Your task to perform on an android device: toggle pop-ups in chrome Image 0: 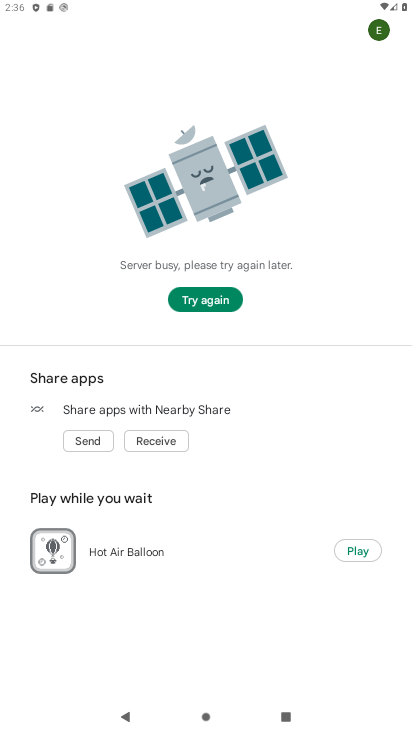
Step 0: press home button
Your task to perform on an android device: toggle pop-ups in chrome Image 1: 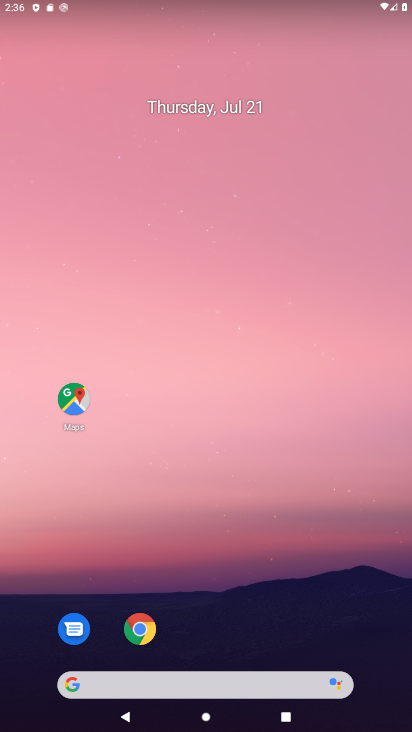
Step 1: drag from (252, 652) to (244, 54)
Your task to perform on an android device: toggle pop-ups in chrome Image 2: 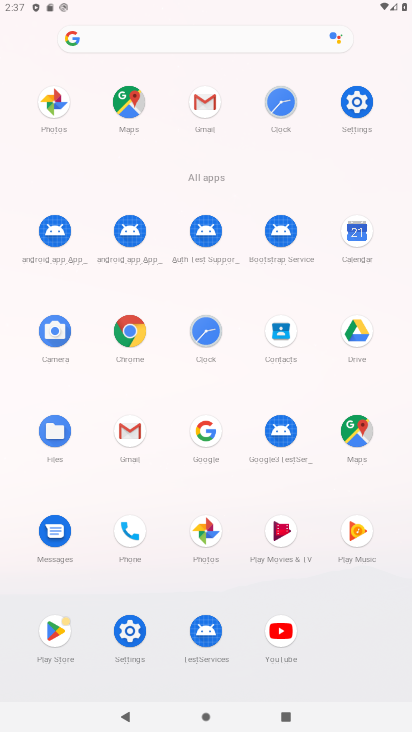
Step 2: click (136, 340)
Your task to perform on an android device: toggle pop-ups in chrome Image 3: 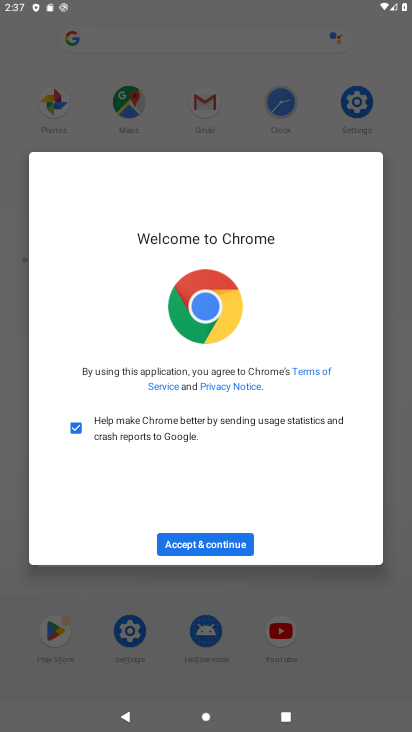
Step 3: click (236, 553)
Your task to perform on an android device: toggle pop-ups in chrome Image 4: 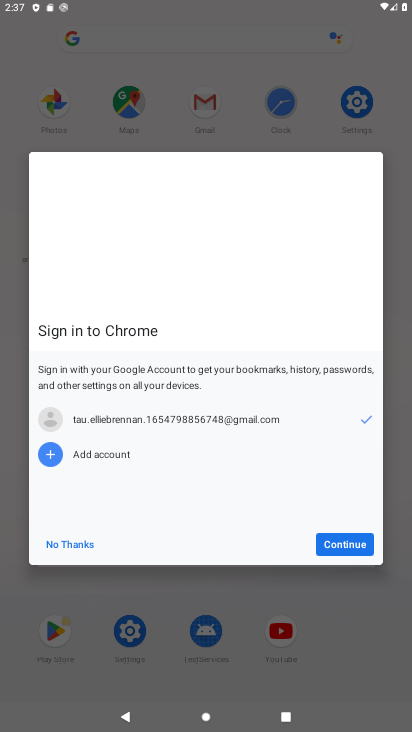
Step 4: click (336, 547)
Your task to perform on an android device: toggle pop-ups in chrome Image 5: 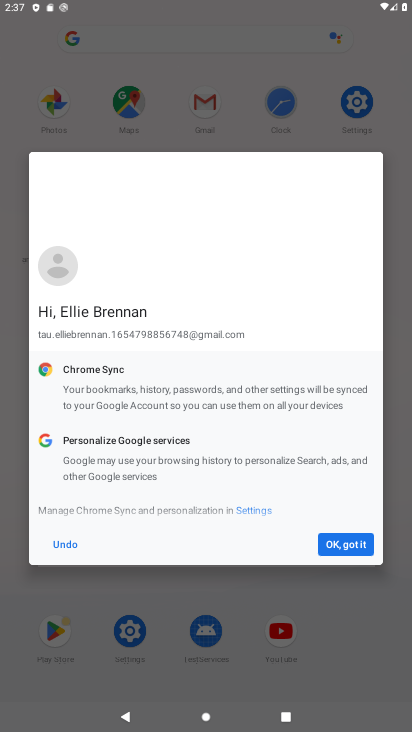
Step 5: click (309, 549)
Your task to perform on an android device: toggle pop-ups in chrome Image 6: 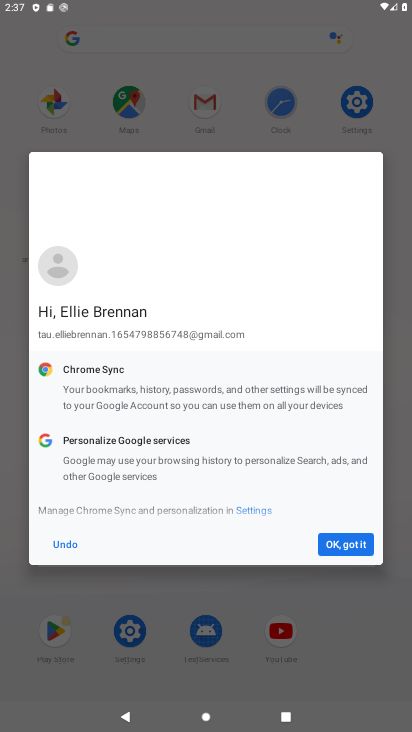
Step 6: click (332, 551)
Your task to perform on an android device: toggle pop-ups in chrome Image 7: 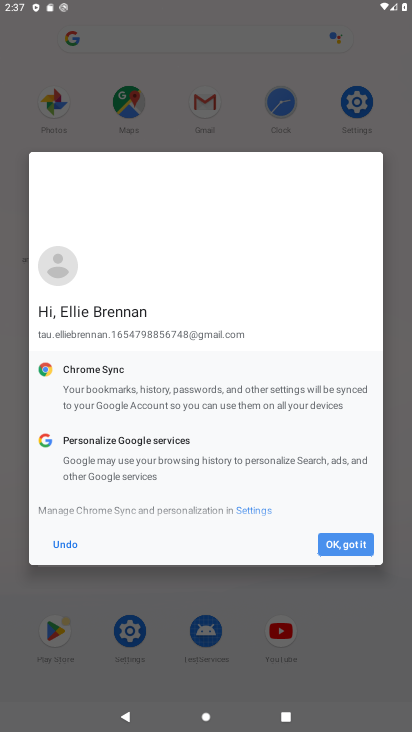
Step 7: click (332, 551)
Your task to perform on an android device: toggle pop-ups in chrome Image 8: 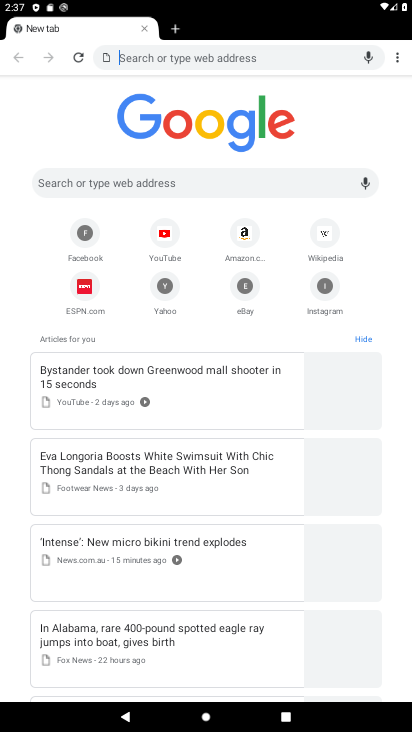
Step 8: drag from (390, 55) to (256, 265)
Your task to perform on an android device: toggle pop-ups in chrome Image 9: 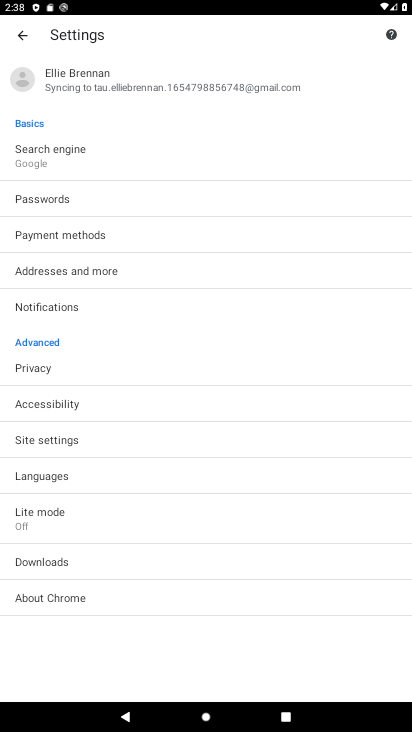
Step 9: click (60, 436)
Your task to perform on an android device: toggle pop-ups in chrome Image 10: 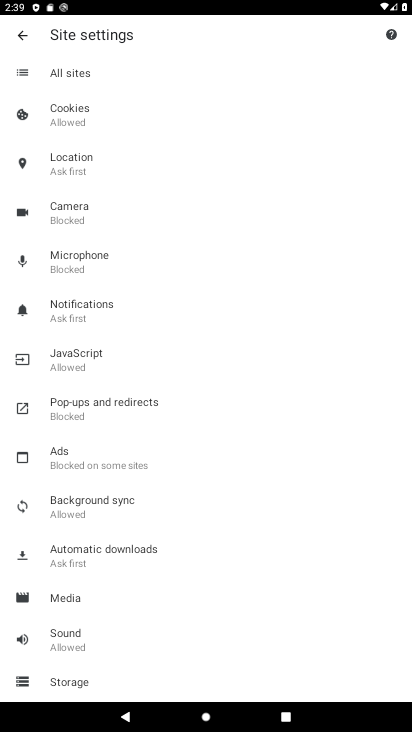
Step 10: click (69, 407)
Your task to perform on an android device: toggle pop-ups in chrome Image 11: 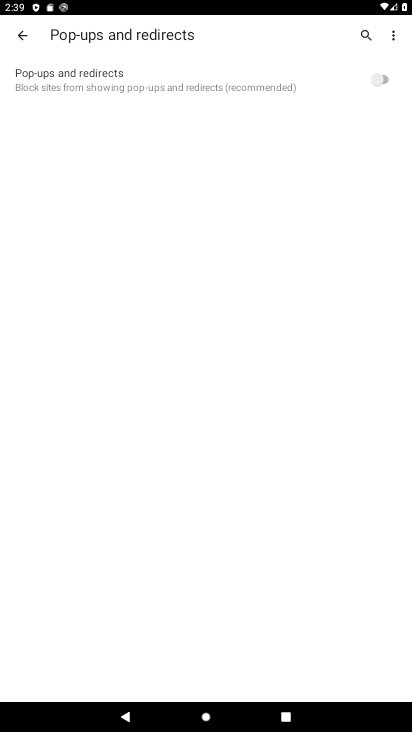
Step 11: click (128, 78)
Your task to perform on an android device: toggle pop-ups in chrome Image 12: 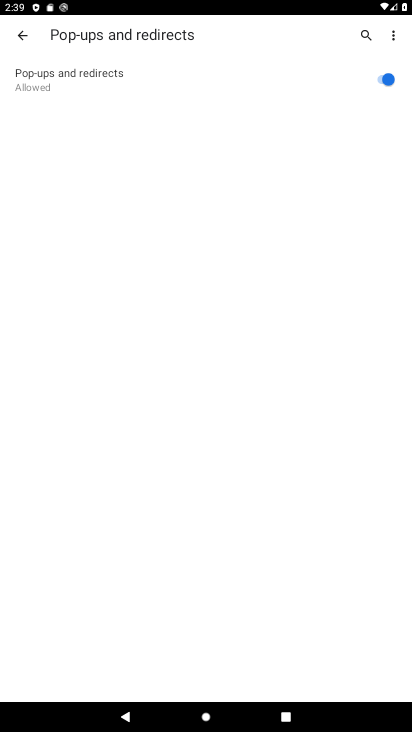
Step 12: task complete